Your task to perform on an android device: Open calendar and show me the third week of next month Image 0: 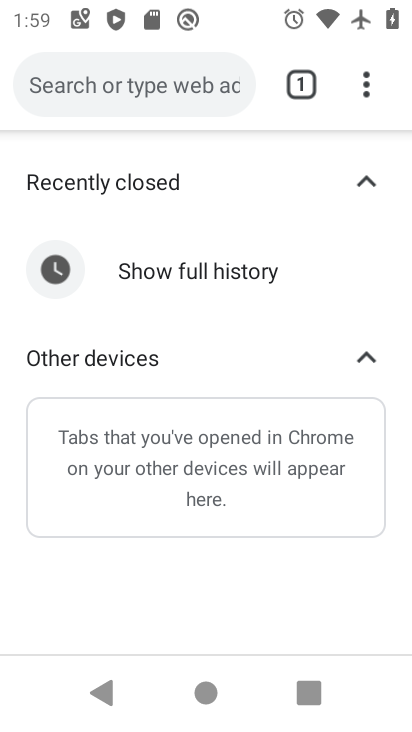
Step 0: press home button
Your task to perform on an android device: Open calendar and show me the third week of next month Image 1: 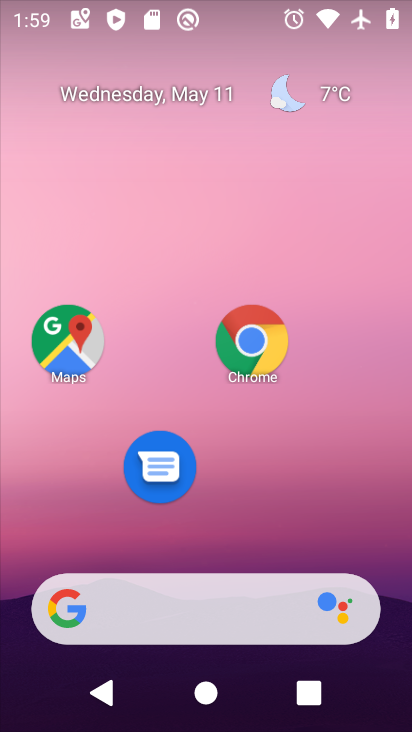
Step 1: drag from (186, 591) to (257, 172)
Your task to perform on an android device: Open calendar and show me the third week of next month Image 2: 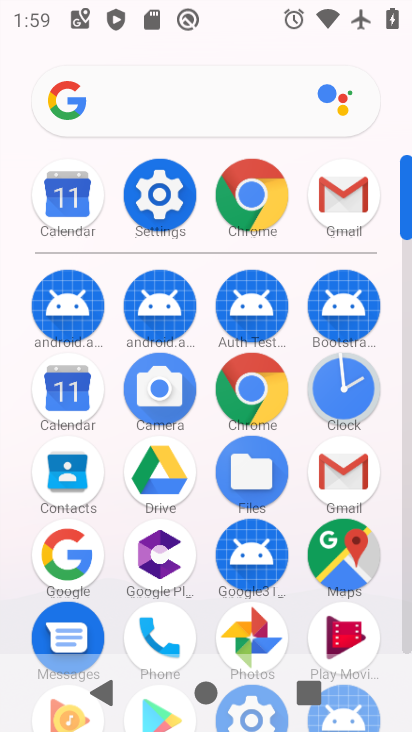
Step 2: click (66, 386)
Your task to perform on an android device: Open calendar and show me the third week of next month Image 3: 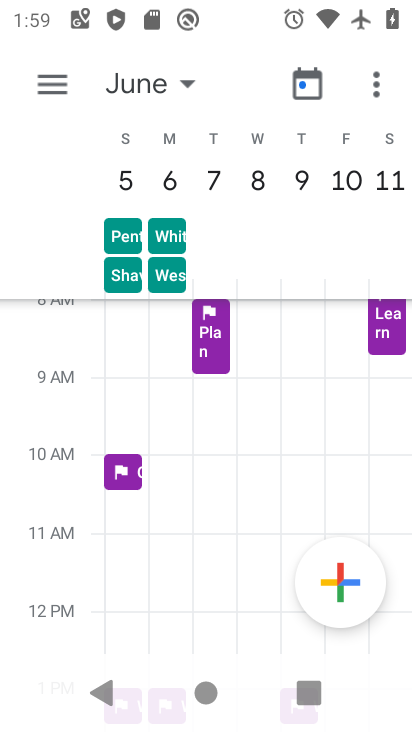
Step 3: click (139, 85)
Your task to perform on an android device: Open calendar and show me the third week of next month Image 4: 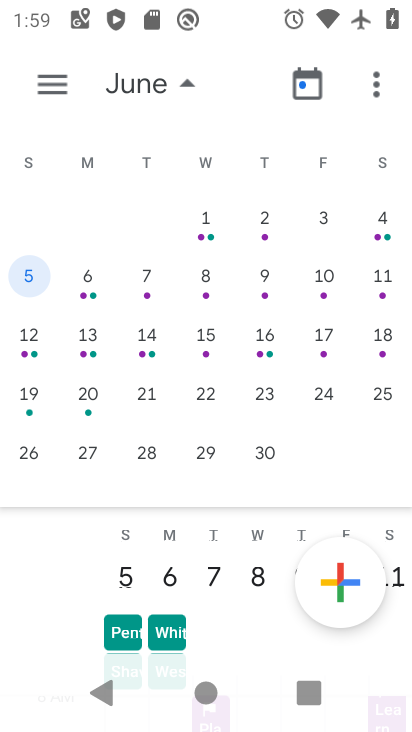
Step 4: click (26, 339)
Your task to perform on an android device: Open calendar and show me the third week of next month Image 5: 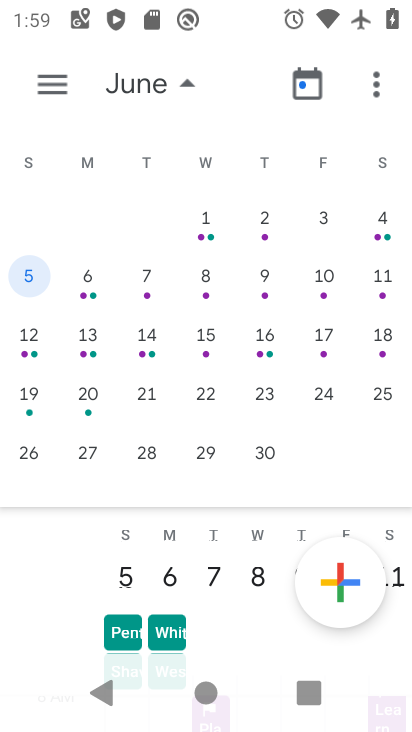
Step 5: click (27, 337)
Your task to perform on an android device: Open calendar and show me the third week of next month Image 6: 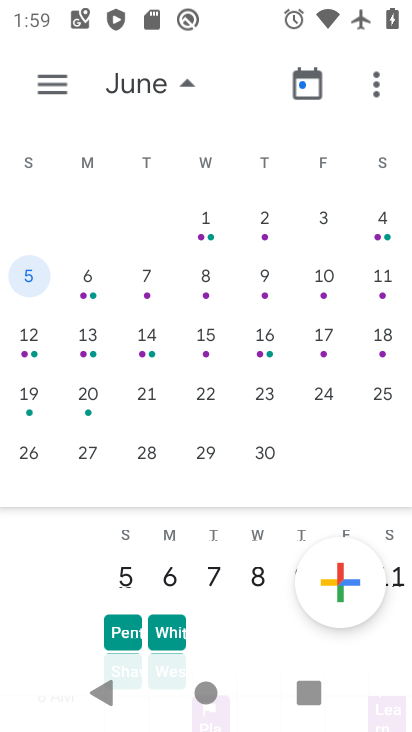
Step 6: click (39, 341)
Your task to perform on an android device: Open calendar and show me the third week of next month Image 7: 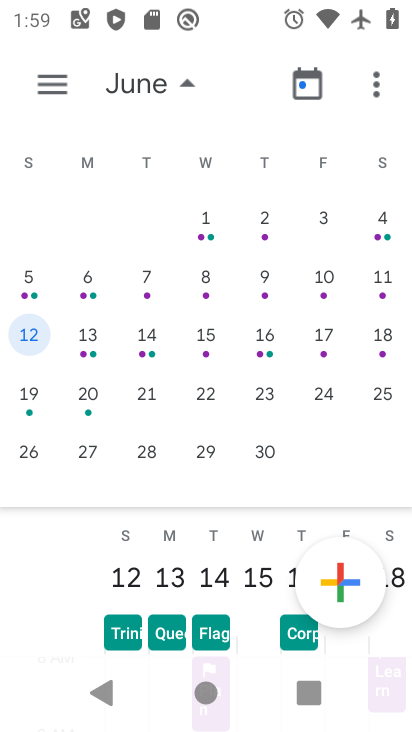
Step 7: click (59, 79)
Your task to perform on an android device: Open calendar and show me the third week of next month Image 8: 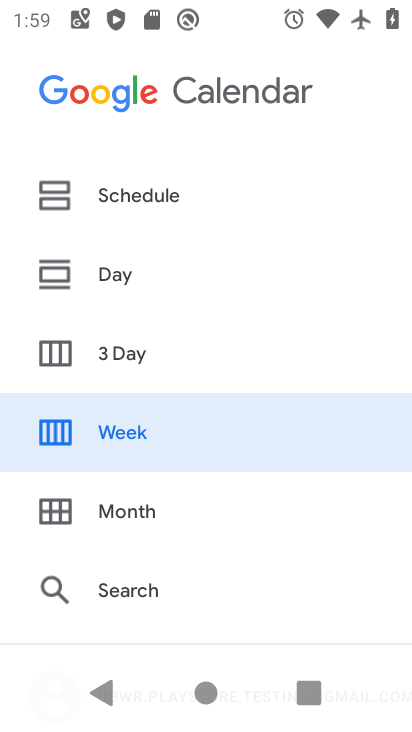
Step 8: click (141, 427)
Your task to perform on an android device: Open calendar and show me the third week of next month Image 9: 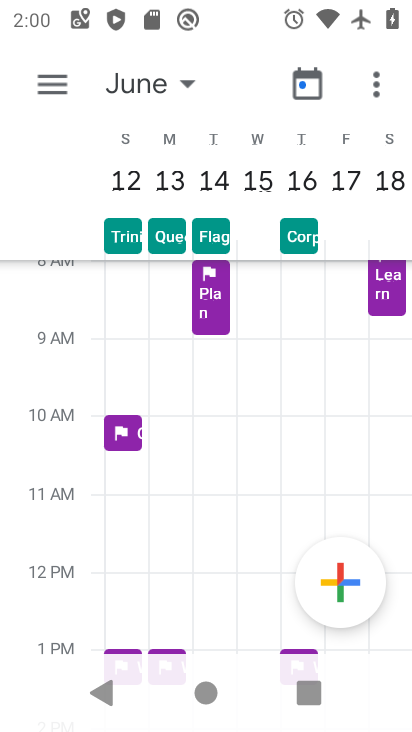
Step 9: task complete